Your task to perform on an android device: Go to Amazon Image 0: 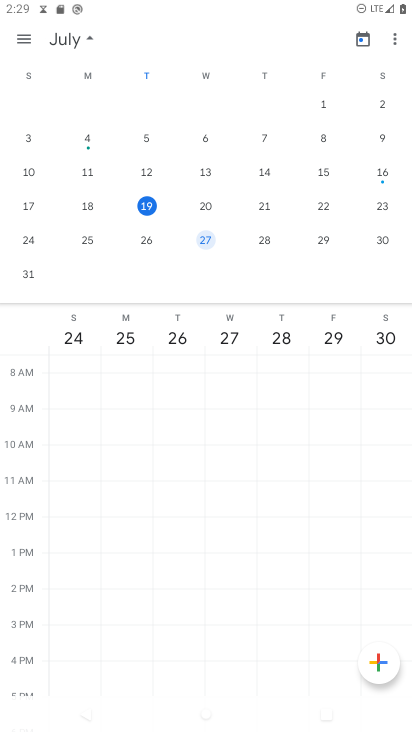
Step 0: press home button
Your task to perform on an android device: Go to Amazon Image 1: 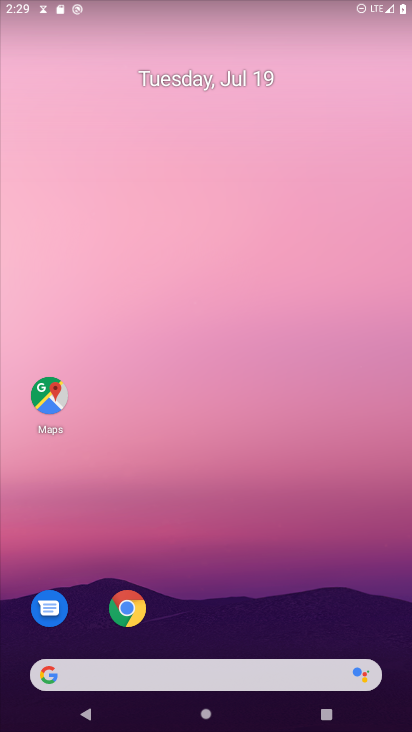
Step 1: drag from (214, 562) to (241, 73)
Your task to perform on an android device: Go to Amazon Image 2: 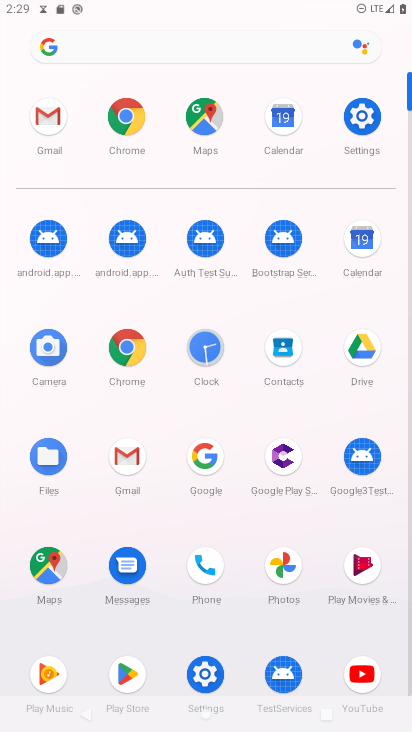
Step 2: click (124, 352)
Your task to perform on an android device: Go to Amazon Image 3: 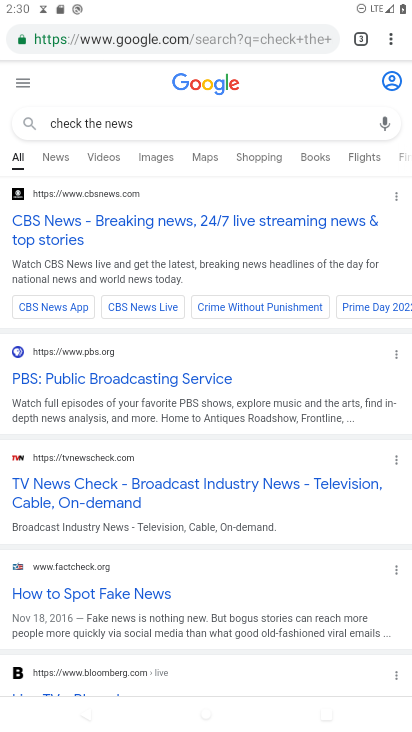
Step 3: click (211, 34)
Your task to perform on an android device: Go to Amazon Image 4: 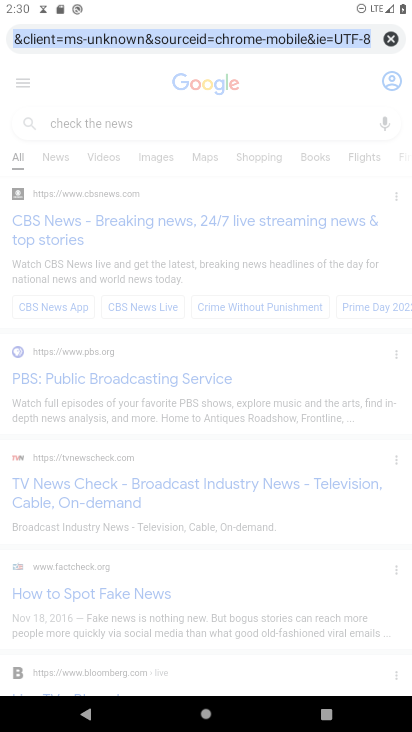
Step 4: type "amazon"
Your task to perform on an android device: Go to Amazon Image 5: 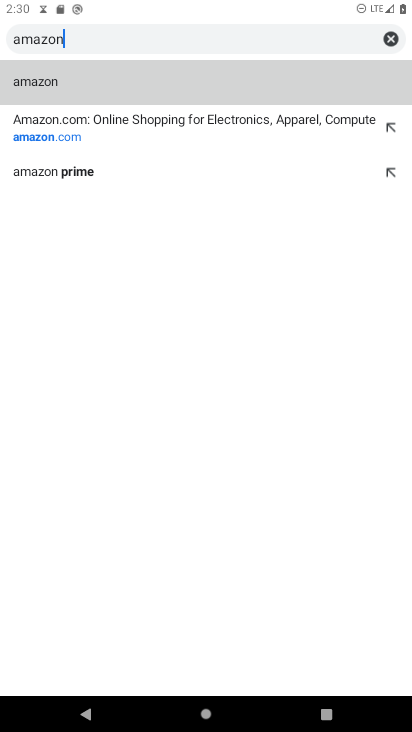
Step 5: click (257, 118)
Your task to perform on an android device: Go to Amazon Image 6: 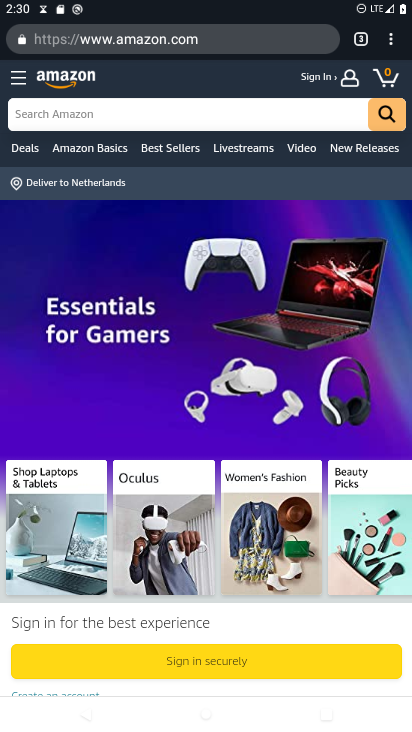
Step 6: drag from (389, 42) to (301, 358)
Your task to perform on an android device: Go to Amazon Image 7: 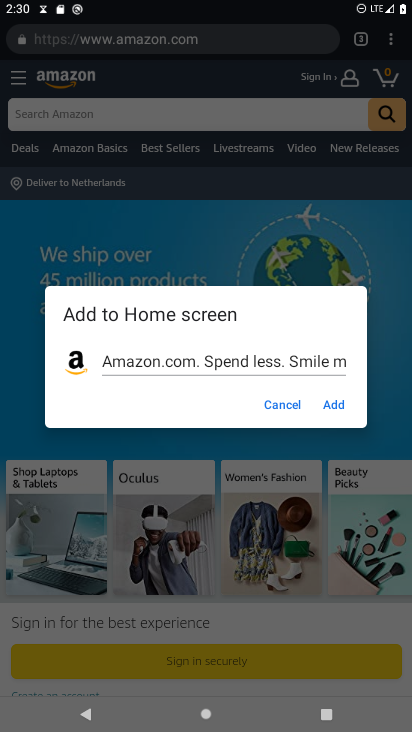
Step 7: click (340, 403)
Your task to perform on an android device: Go to Amazon Image 8: 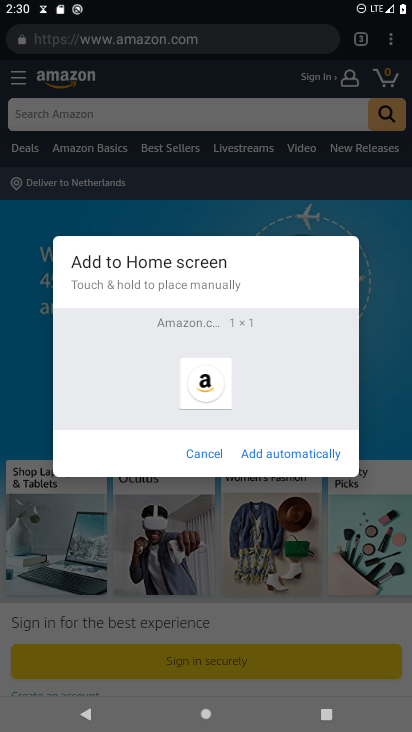
Step 8: click (311, 465)
Your task to perform on an android device: Go to Amazon Image 9: 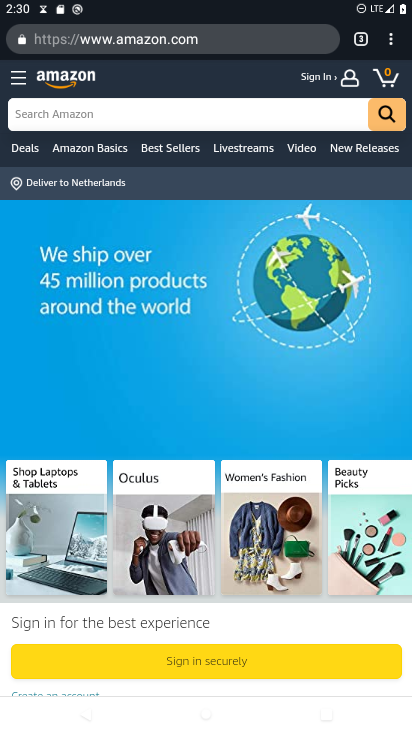
Step 9: task complete